Your task to perform on an android device: change the clock display to show seconds Image 0: 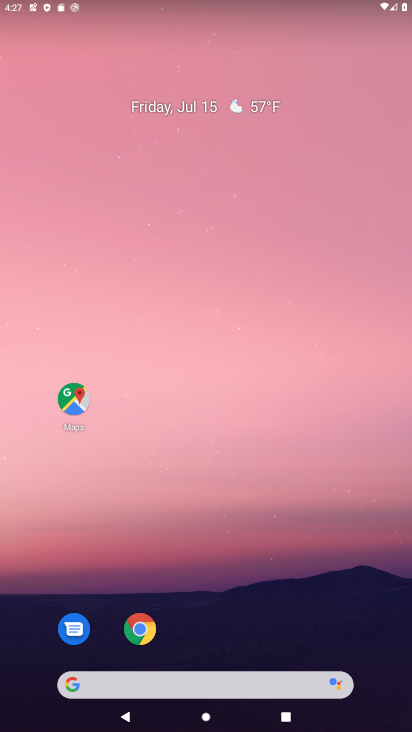
Step 0: press home button
Your task to perform on an android device: change the clock display to show seconds Image 1: 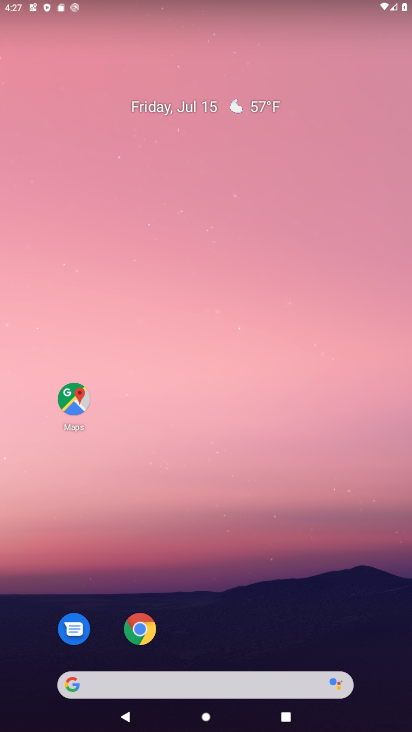
Step 1: drag from (255, 629) to (305, 13)
Your task to perform on an android device: change the clock display to show seconds Image 2: 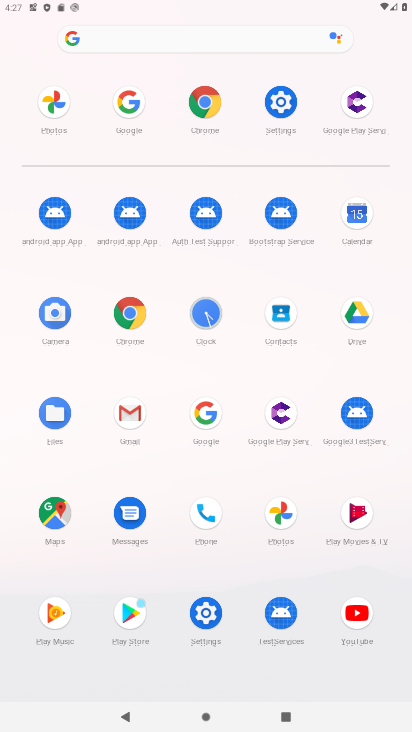
Step 2: click (197, 319)
Your task to perform on an android device: change the clock display to show seconds Image 3: 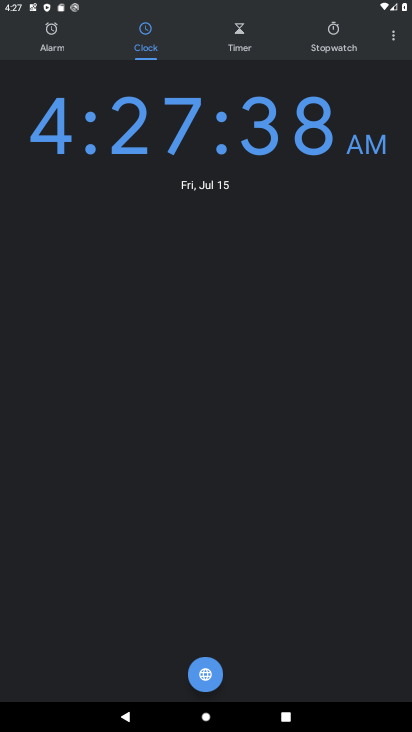
Step 3: click (391, 35)
Your task to perform on an android device: change the clock display to show seconds Image 4: 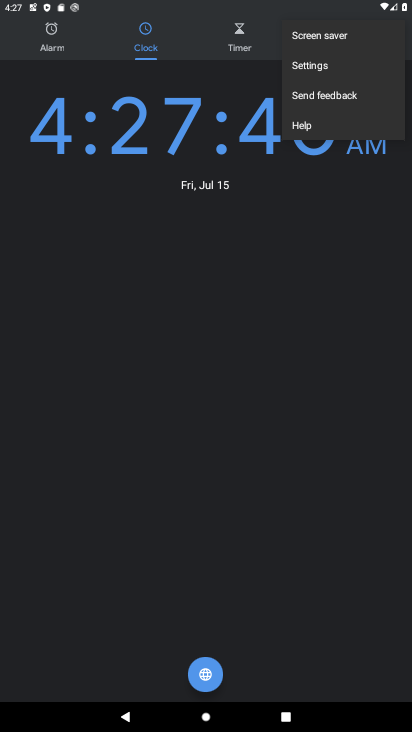
Step 4: click (316, 69)
Your task to perform on an android device: change the clock display to show seconds Image 5: 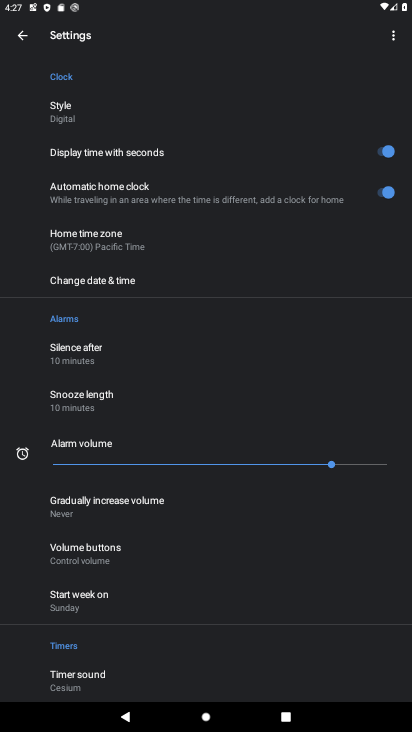
Step 5: task complete